Your task to perform on an android device: open a bookmark in the chrome app Image 0: 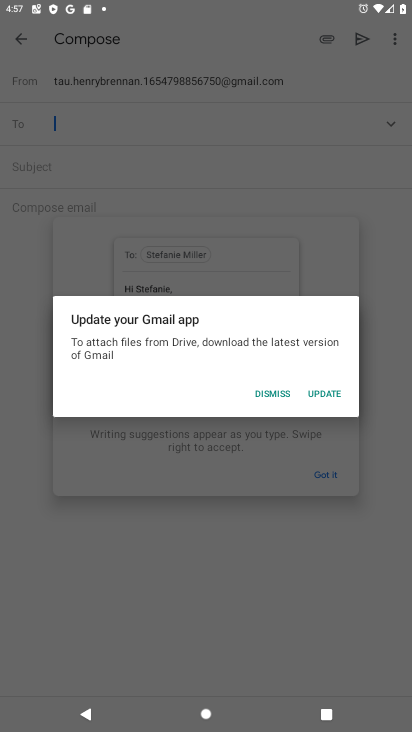
Step 0: press home button
Your task to perform on an android device: open a bookmark in the chrome app Image 1: 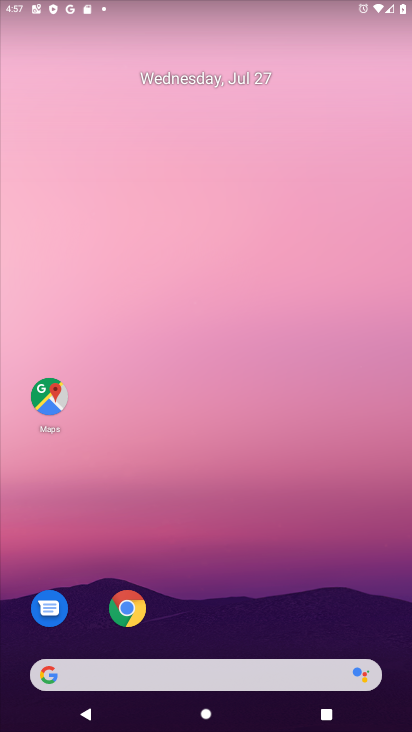
Step 1: click (121, 600)
Your task to perform on an android device: open a bookmark in the chrome app Image 2: 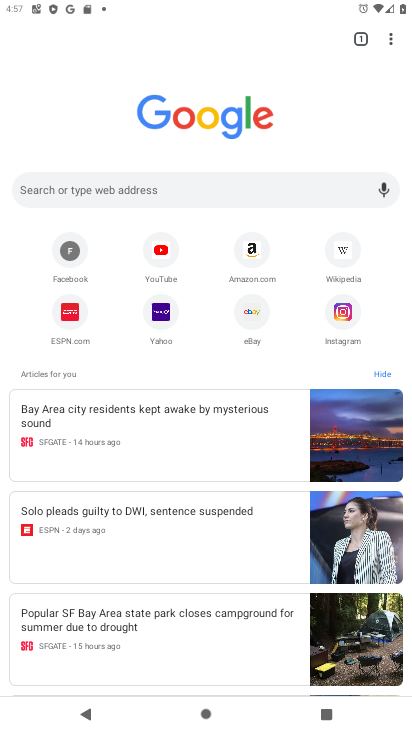
Step 2: click (384, 42)
Your task to perform on an android device: open a bookmark in the chrome app Image 3: 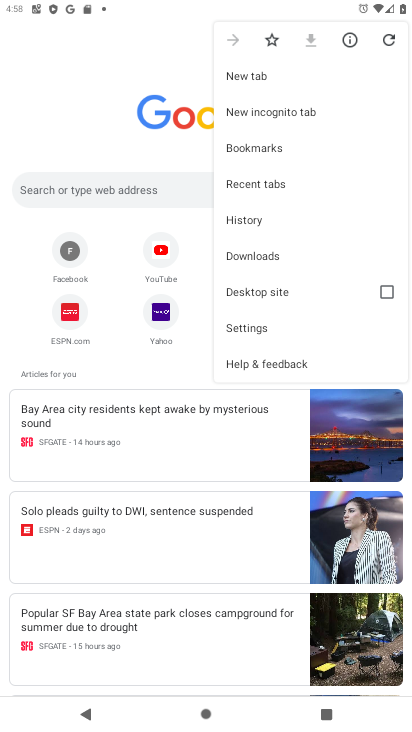
Step 3: click (268, 148)
Your task to perform on an android device: open a bookmark in the chrome app Image 4: 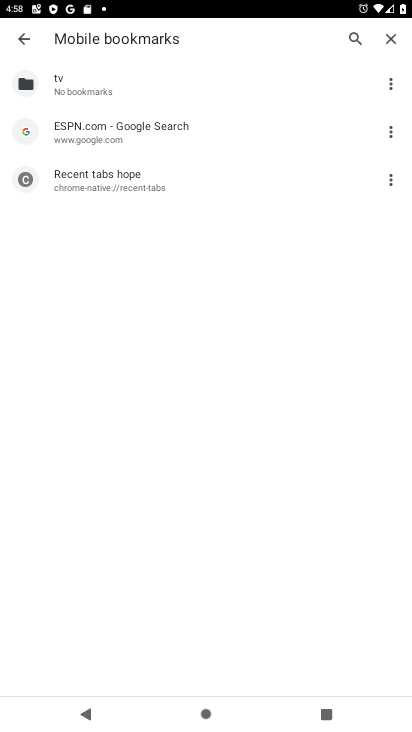
Step 4: task complete